Your task to perform on an android device: What's on the menu at In-N-Out? Image 0: 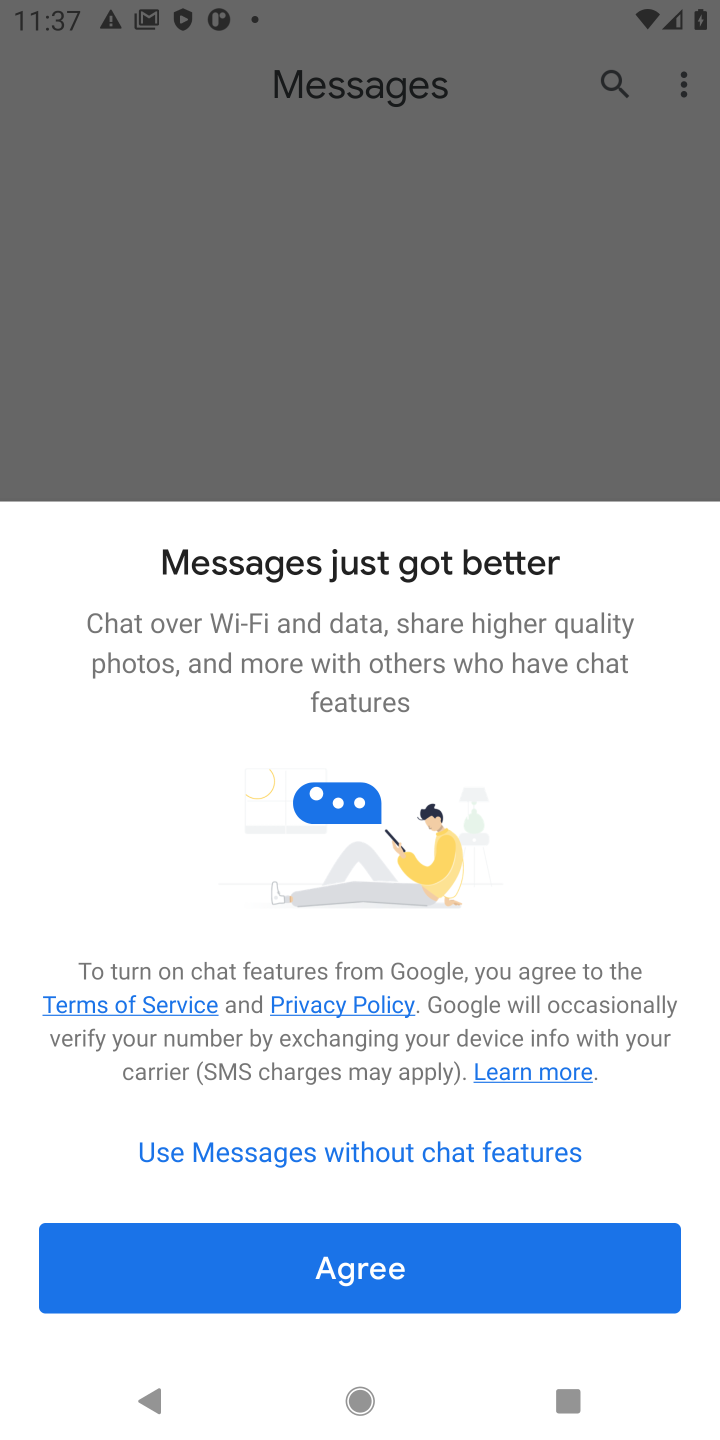
Step 0: press home button
Your task to perform on an android device: What's on the menu at In-N-Out? Image 1: 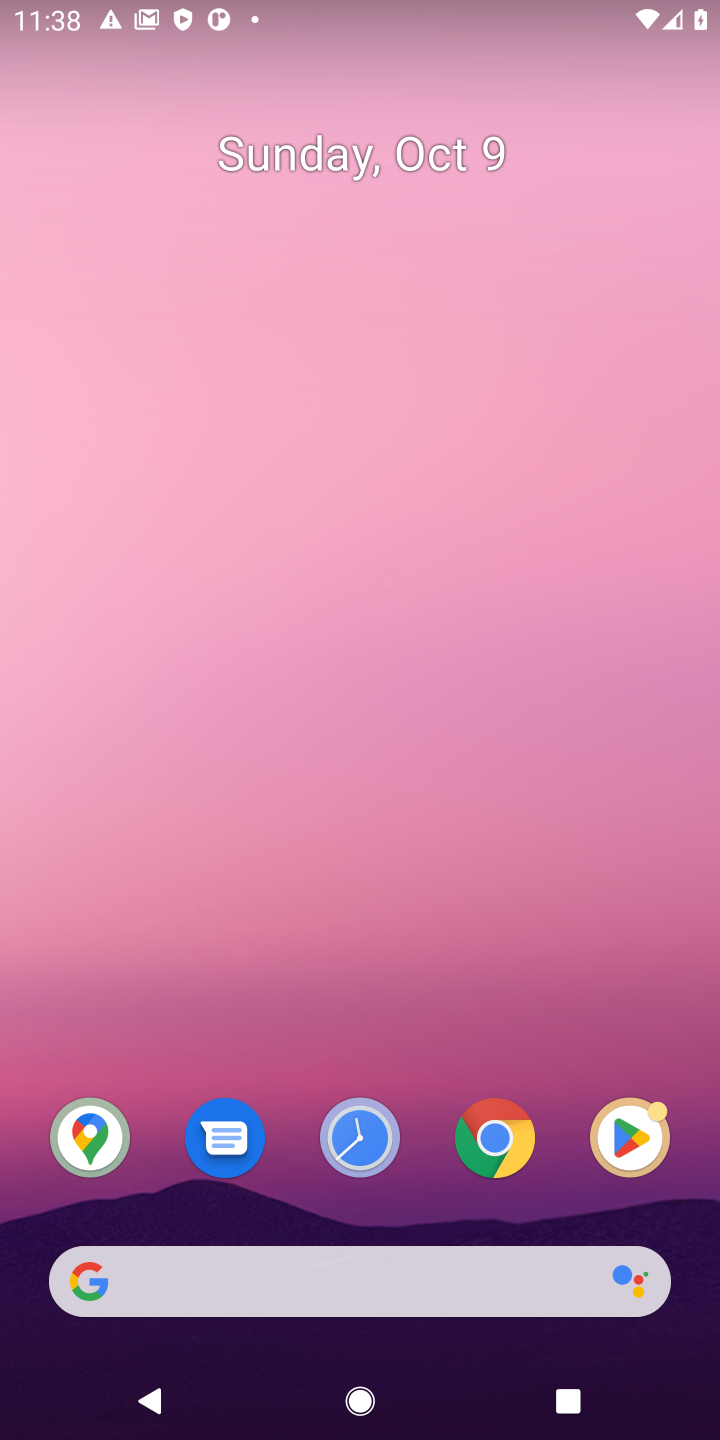
Step 1: click (514, 1139)
Your task to perform on an android device: What's on the menu at In-N-Out? Image 2: 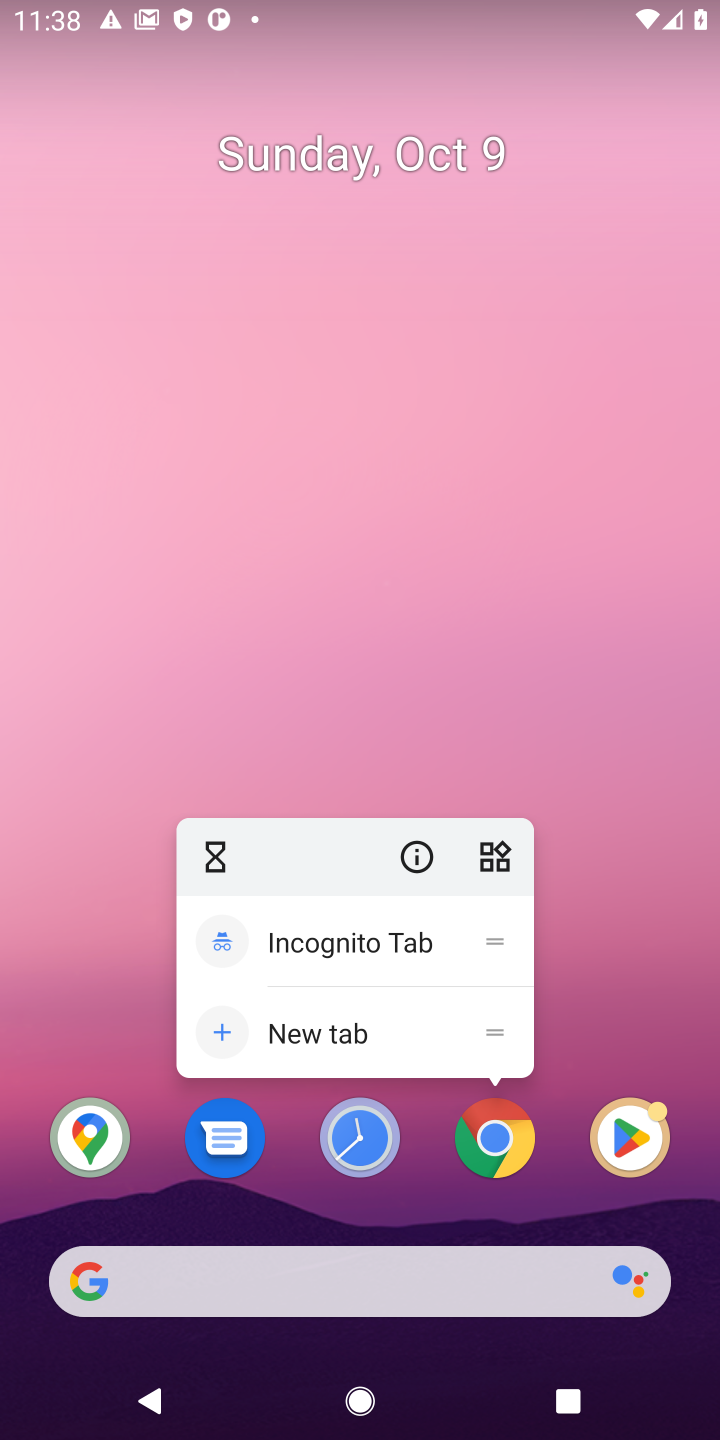
Step 2: click (514, 1139)
Your task to perform on an android device: What's on the menu at In-N-Out? Image 3: 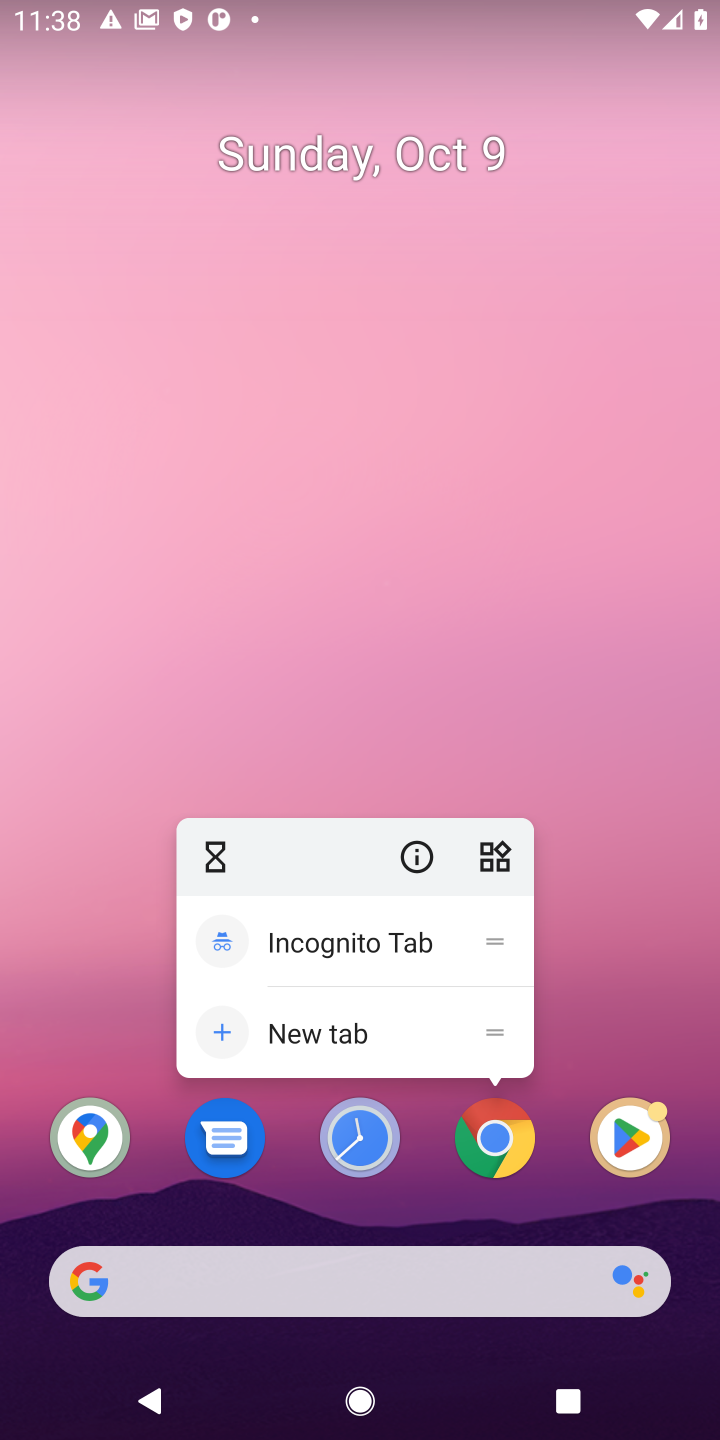
Step 3: click (514, 1139)
Your task to perform on an android device: What's on the menu at In-N-Out? Image 4: 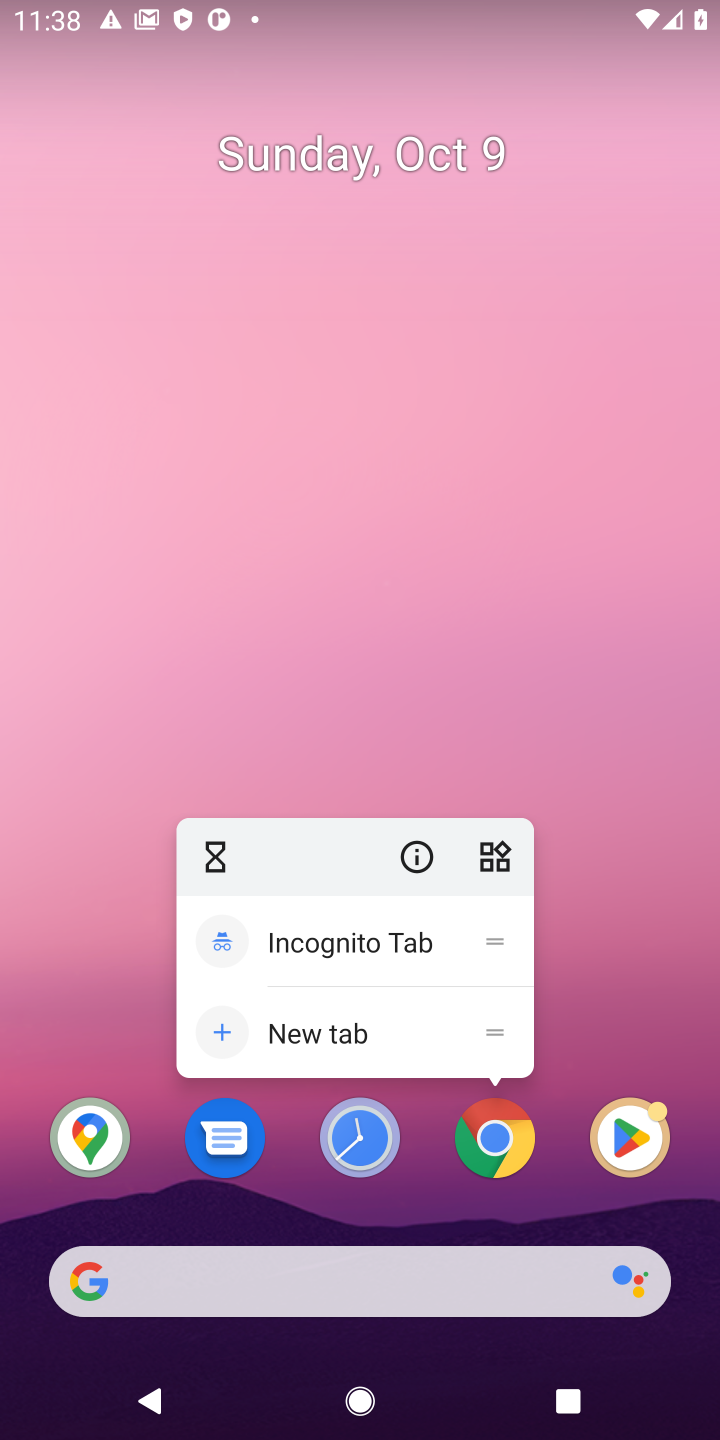
Step 4: click (481, 1114)
Your task to perform on an android device: What's on the menu at In-N-Out? Image 5: 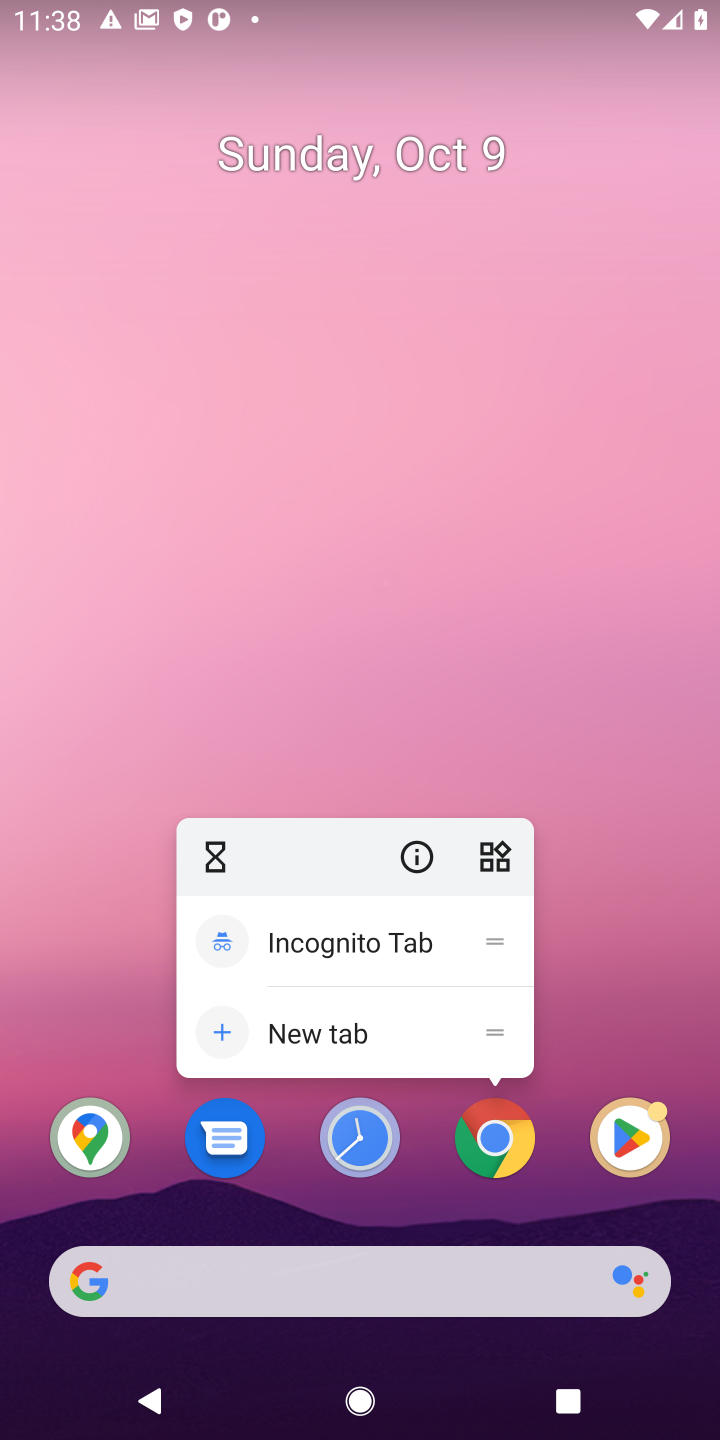
Step 5: click (481, 1114)
Your task to perform on an android device: What's on the menu at In-N-Out? Image 6: 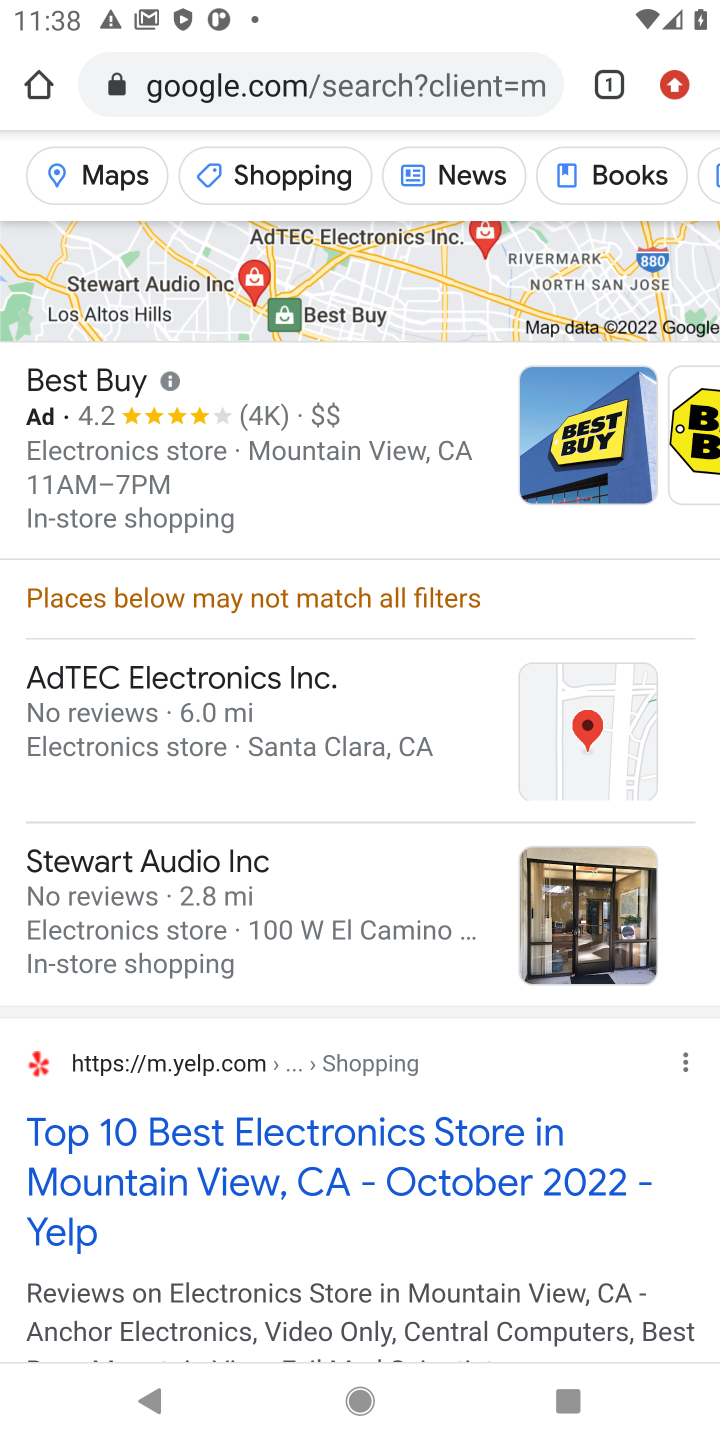
Step 6: click (365, 94)
Your task to perform on an android device: What's on the menu at In-N-Out? Image 7: 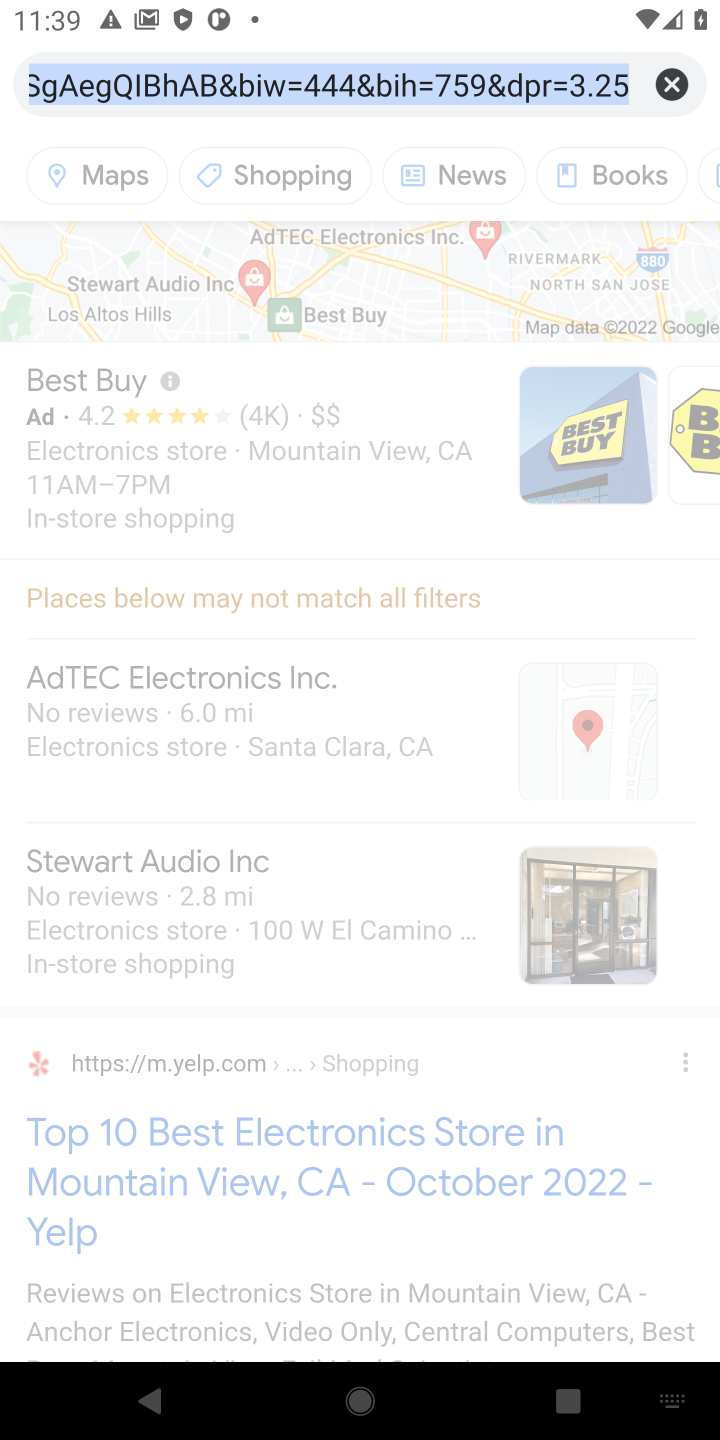
Step 7: type "What's on the menu at In-N-Out?"
Your task to perform on an android device: What's on the menu at In-N-Out? Image 8: 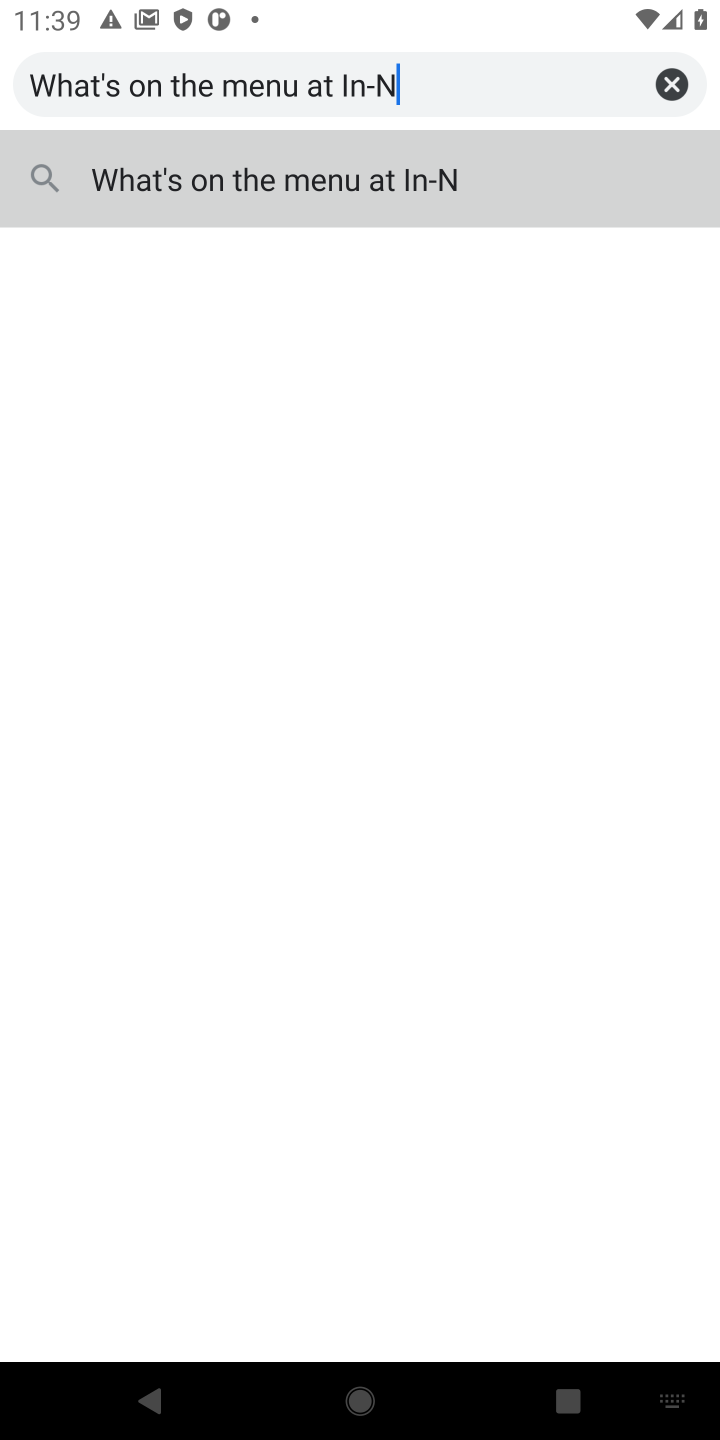
Step 8: type "-out?"
Your task to perform on an android device: What's on the menu at In-N-Out? Image 9: 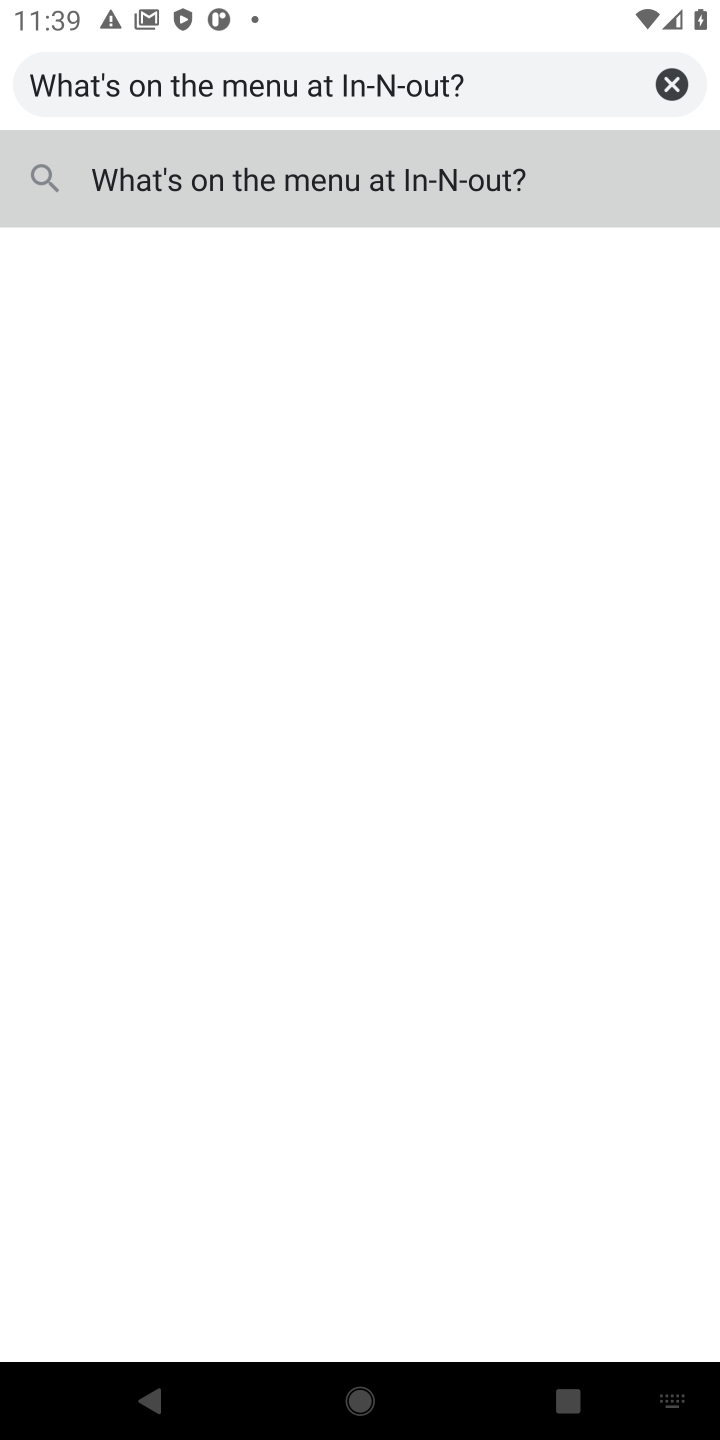
Step 9: press enter
Your task to perform on an android device: What's on the menu at In-N-Out? Image 10: 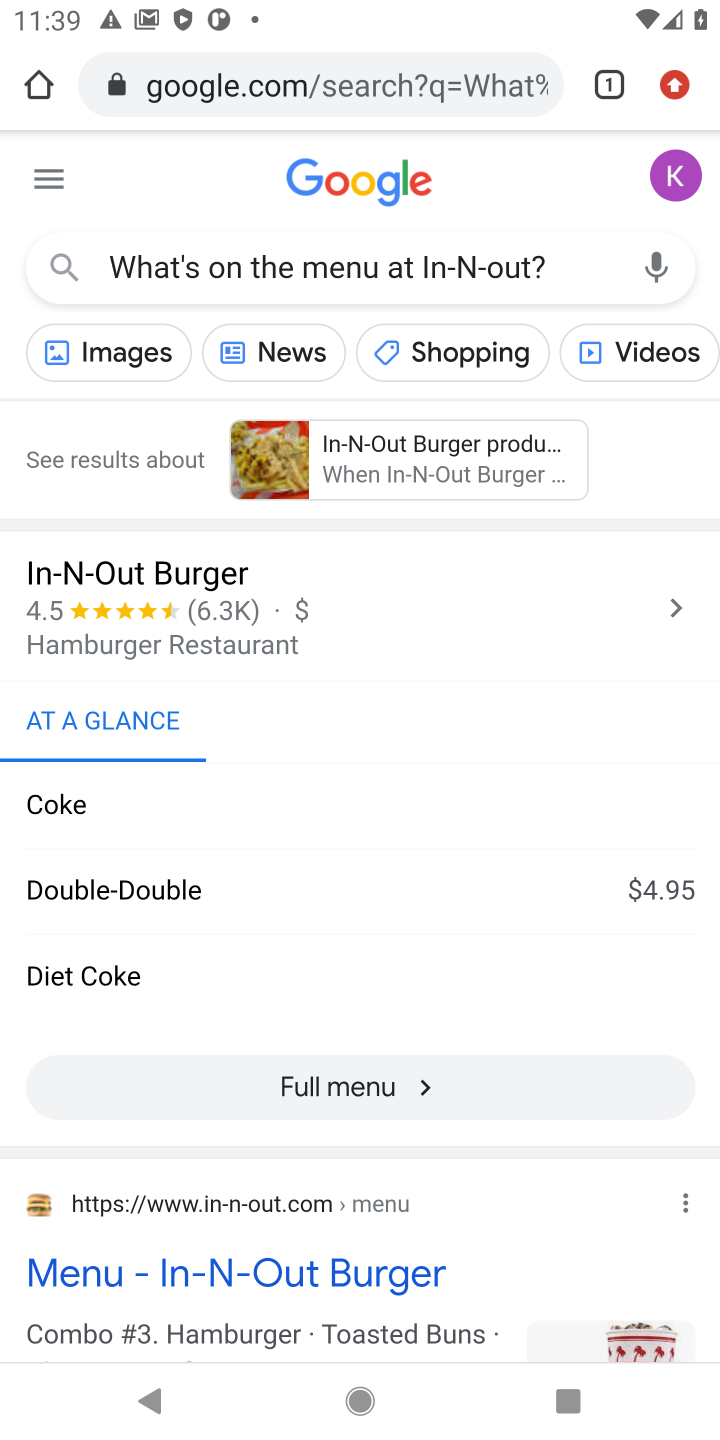
Step 10: task complete